Your task to perform on an android device: Do I have any events this weekend? Image 0: 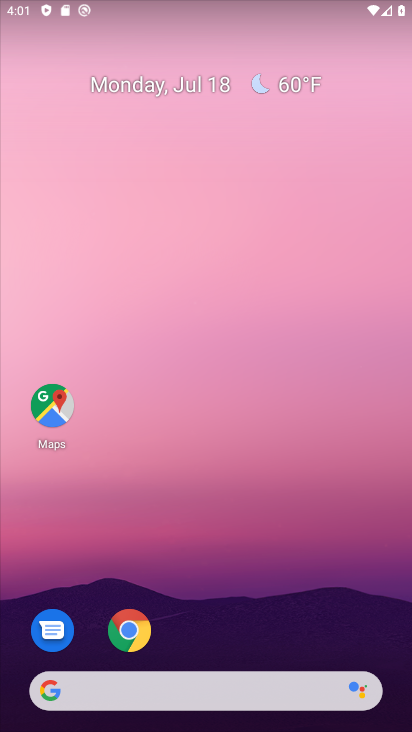
Step 0: drag from (261, 708) to (211, 180)
Your task to perform on an android device: Do I have any events this weekend? Image 1: 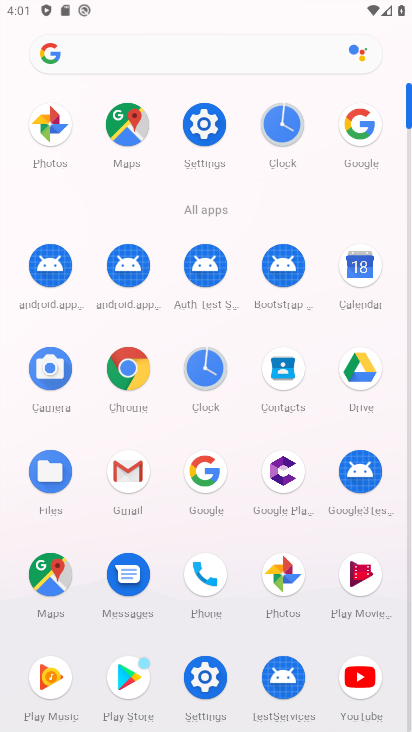
Step 1: click (349, 266)
Your task to perform on an android device: Do I have any events this weekend? Image 2: 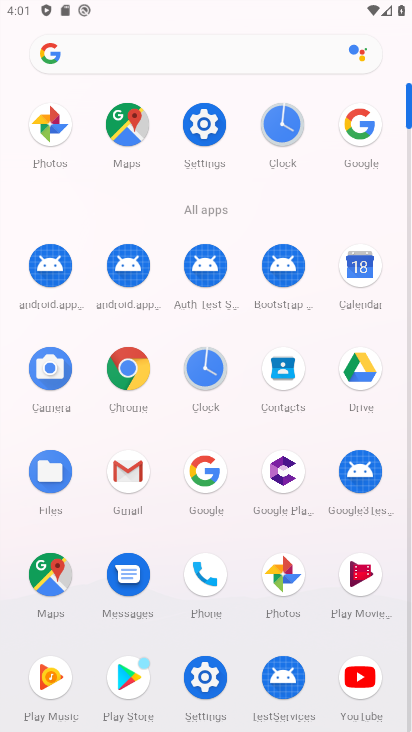
Step 2: click (349, 266)
Your task to perform on an android device: Do I have any events this weekend? Image 3: 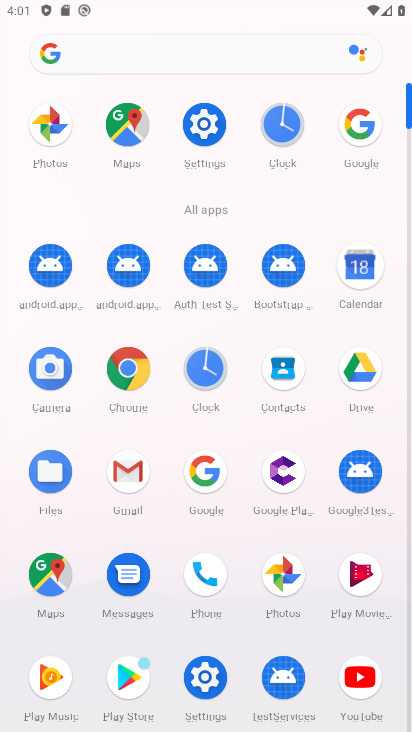
Step 3: click (349, 266)
Your task to perform on an android device: Do I have any events this weekend? Image 4: 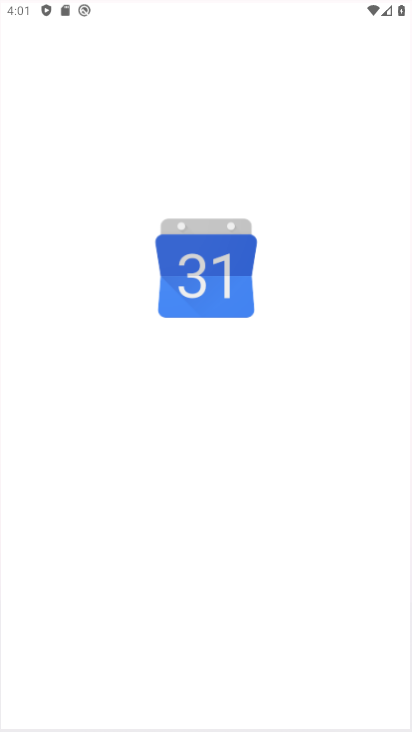
Step 4: click (356, 262)
Your task to perform on an android device: Do I have any events this weekend? Image 5: 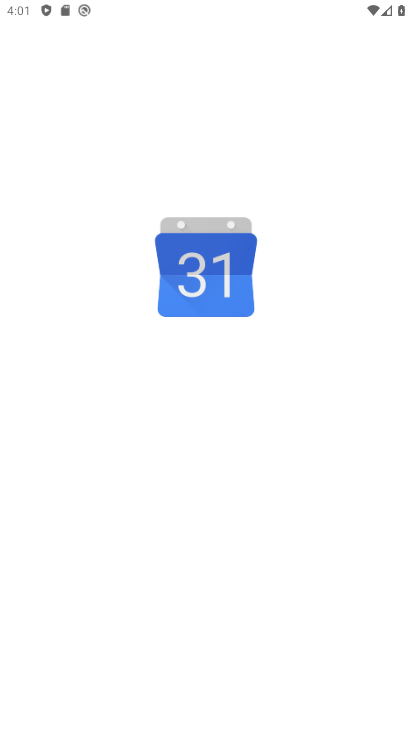
Step 5: click (355, 261)
Your task to perform on an android device: Do I have any events this weekend? Image 6: 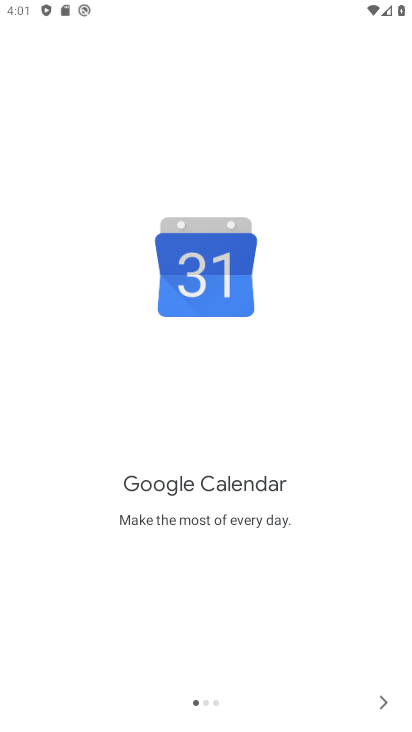
Step 6: click (384, 704)
Your task to perform on an android device: Do I have any events this weekend? Image 7: 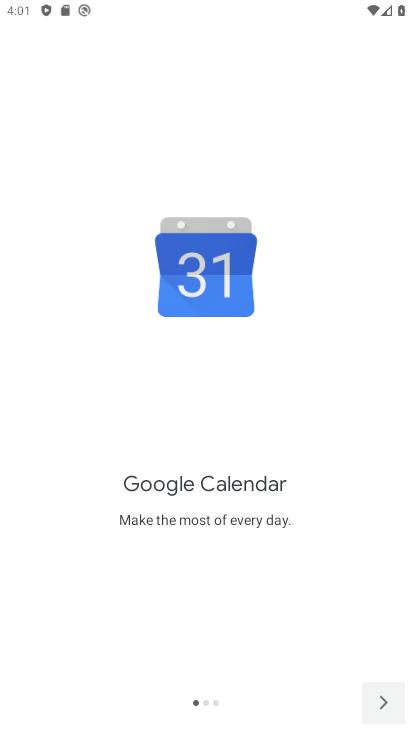
Step 7: click (381, 706)
Your task to perform on an android device: Do I have any events this weekend? Image 8: 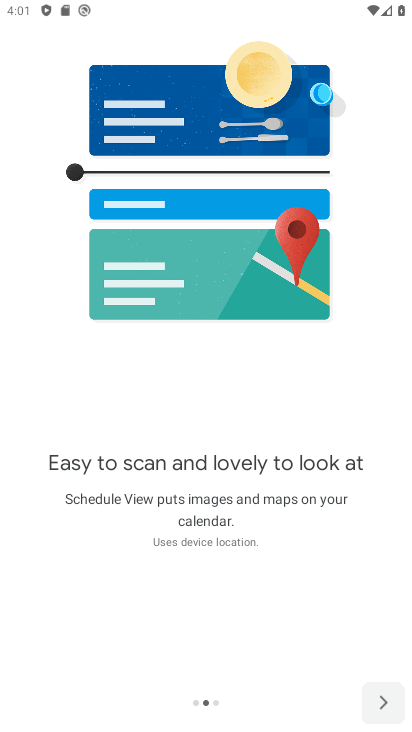
Step 8: click (379, 707)
Your task to perform on an android device: Do I have any events this weekend? Image 9: 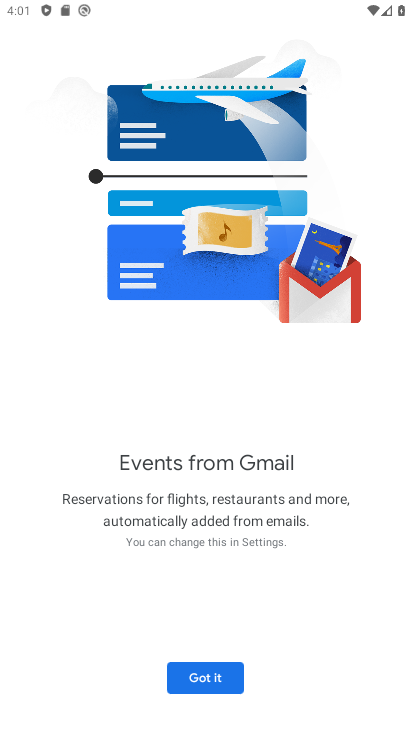
Step 9: click (210, 680)
Your task to perform on an android device: Do I have any events this weekend? Image 10: 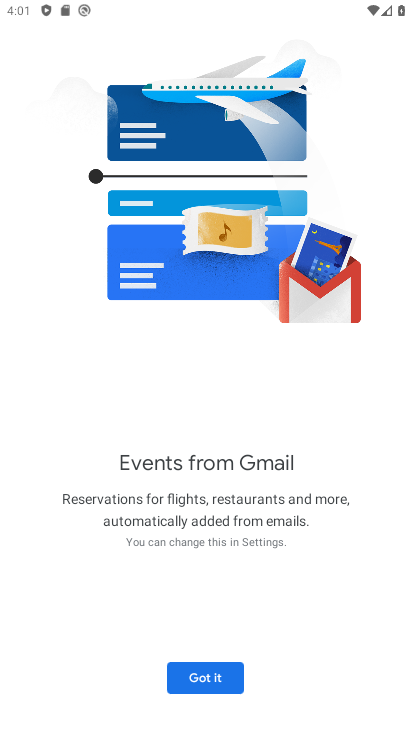
Step 10: click (210, 680)
Your task to perform on an android device: Do I have any events this weekend? Image 11: 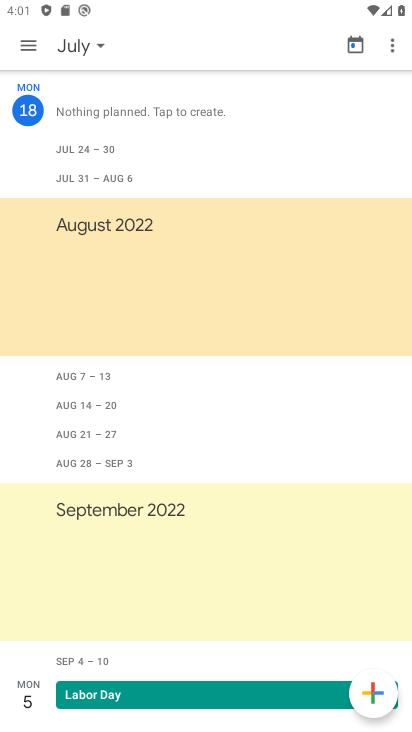
Step 11: click (99, 40)
Your task to perform on an android device: Do I have any events this weekend? Image 12: 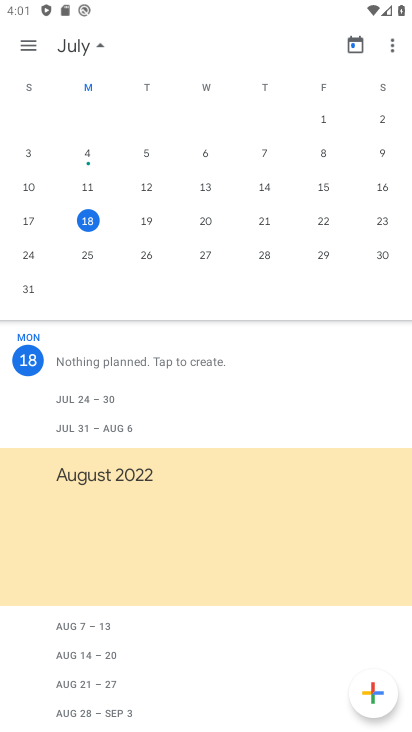
Step 12: click (374, 214)
Your task to perform on an android device: Do I have any events this weekend? Image 13: 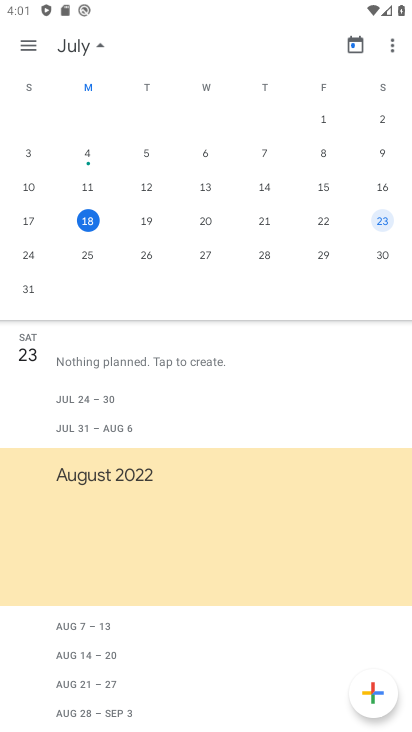
Step 13: click (373, 215)
Your task to perform on an android device: Do I have any events this weekend? Image 14: 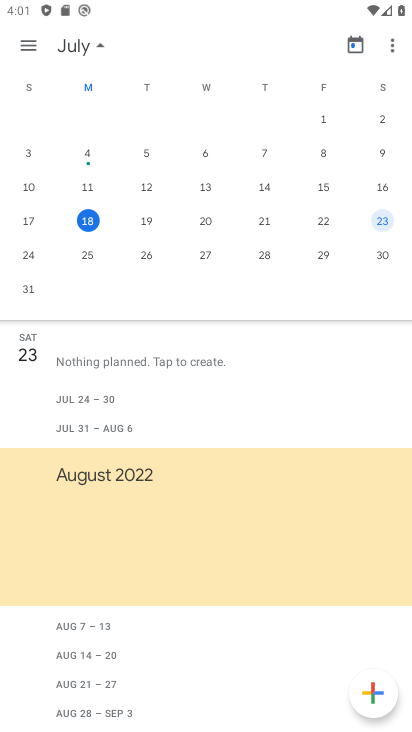
Step 14: click (373, 215)
Your task to perform on an android device: Do I have any events this weekend? Image 15: 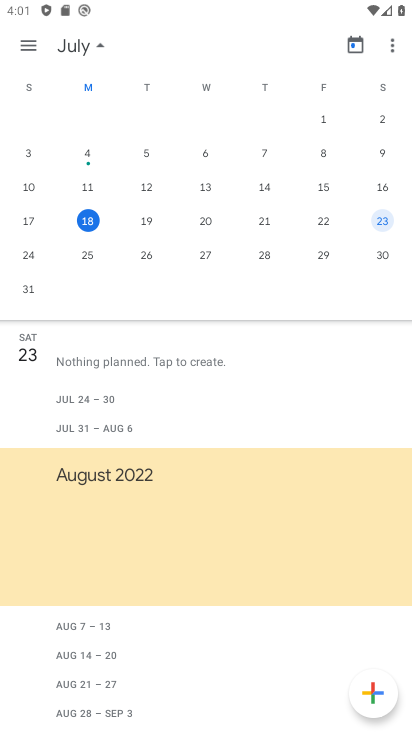
Step 15: click (374, 215)
Your task to perform on an android device: Do I have any events this weekend? Image 16: 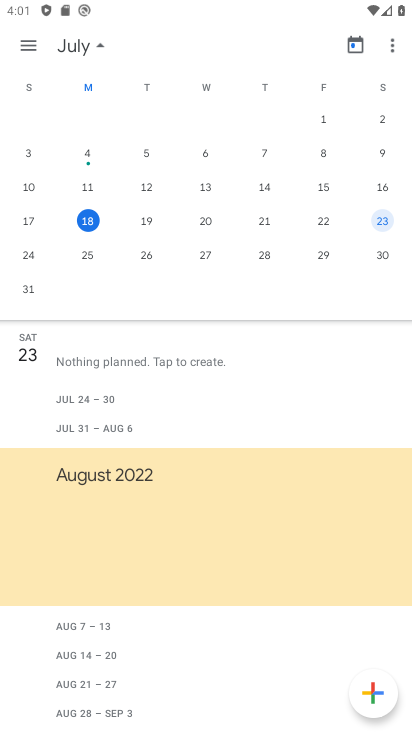
Step 16: task complete